Your task to perform on an android device: Empty the shopping cart on newegg.com. Image 0: 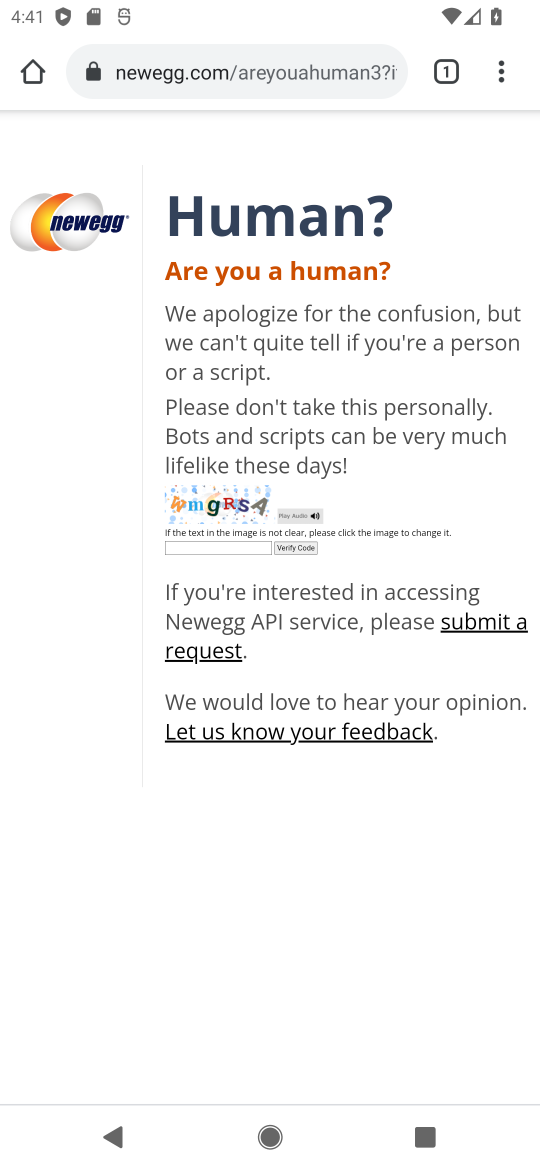
Step 0: press home button
Your task to perform on an android device: Empty the shopping cart on newegg.com. Image 1: 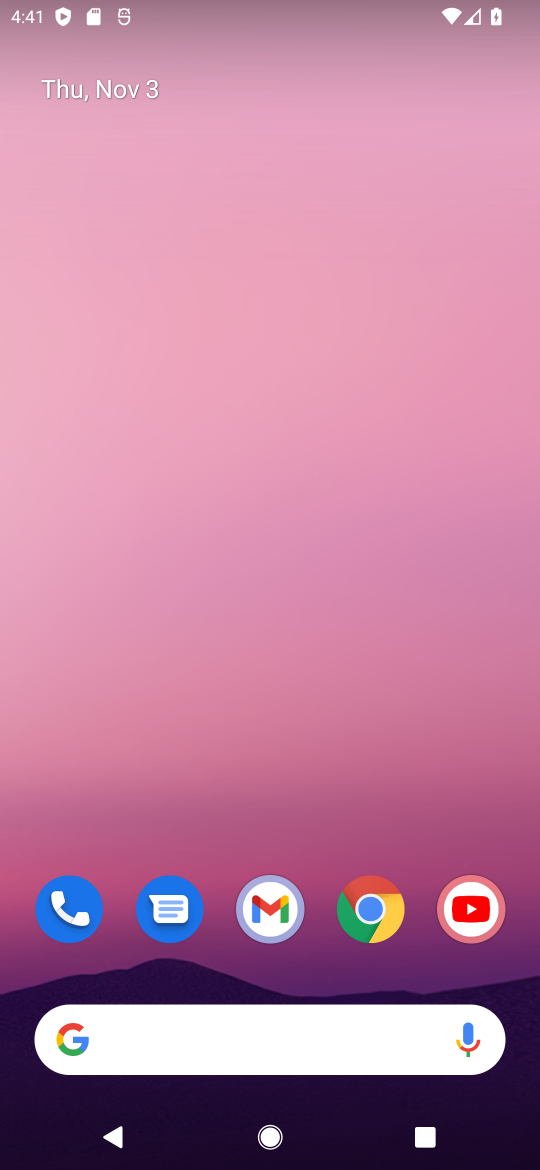
Step 1: click (373, 913)
Your task to perform on an android device: Empty the shopping cart on newegg.com. Image 2: 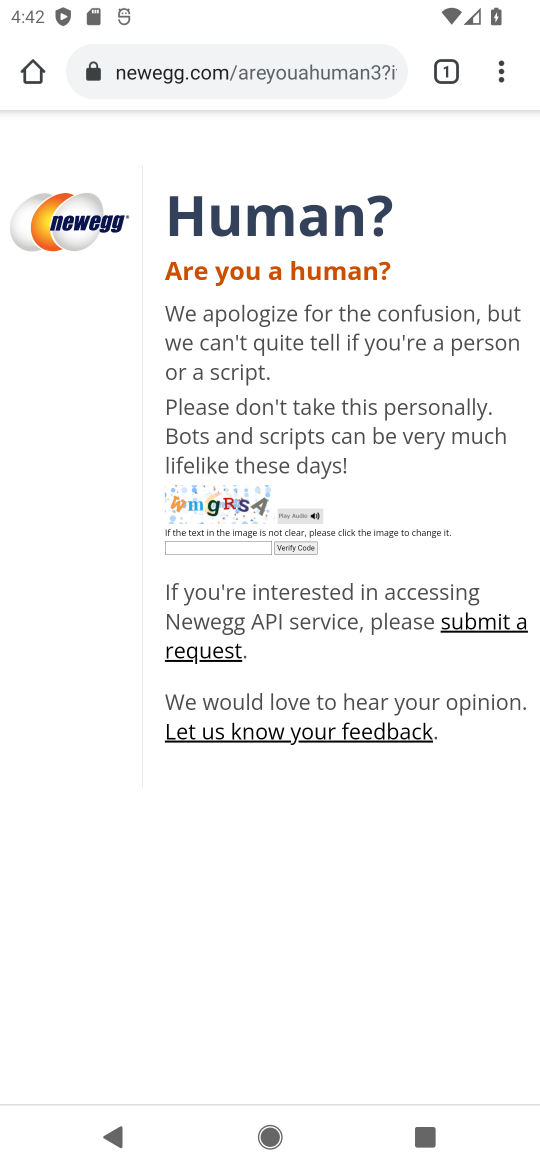
Step 2: click (267, 77)
Your task to perform on an android device: Empty the shopping cart on newegg.com. Image 3: 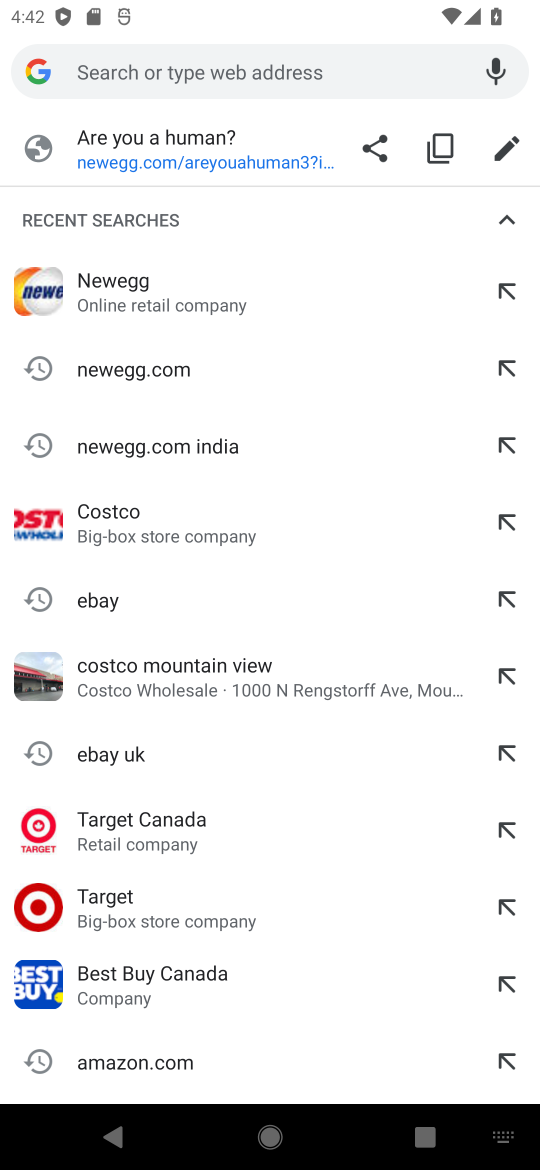
Step 3: click (178, 59)
Your task to perform on an android device: Empty the shopping cart on newegg.com. Image 4: 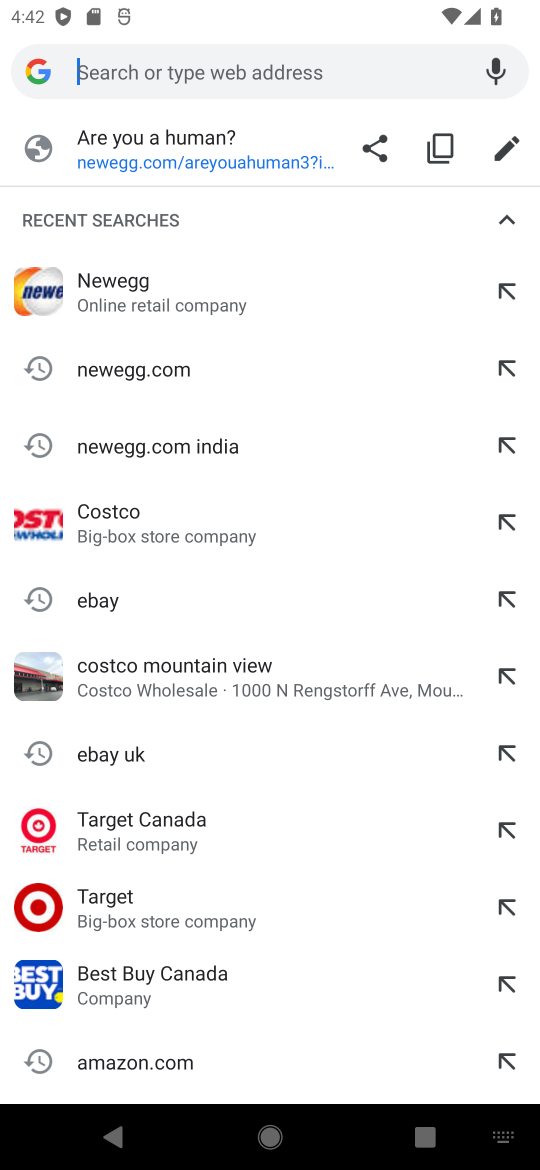
Step 4: type "newegg.com"
Your task to perform on an android device: Empty the shopping cart on newegg.com. Image 5: 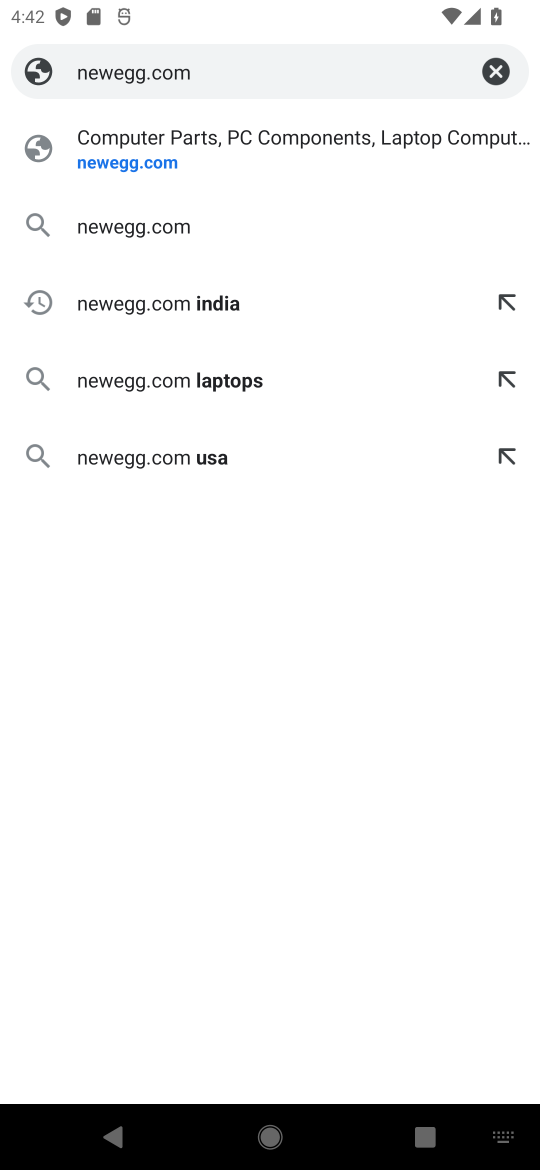
Step 5: click (127, 230)
Your task to perform on an android device: Empty the shopping cart on newegg.com. Image 6: 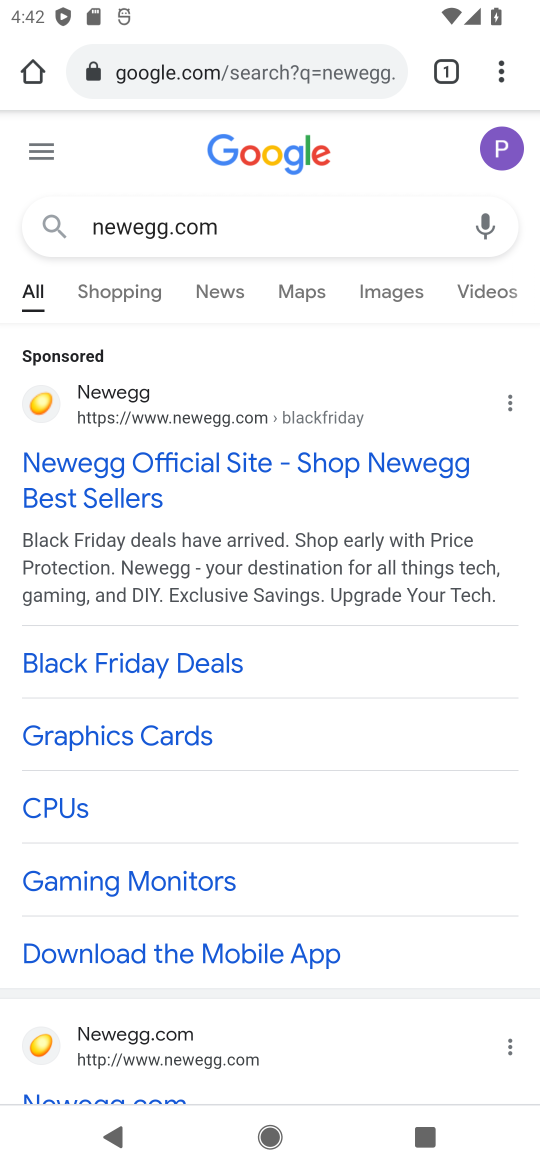
Step 6: drag from (317, 1027) to (354, 609)
Your task to perform on an android device: Empty the shopping cart on newegg.com. Image 7: 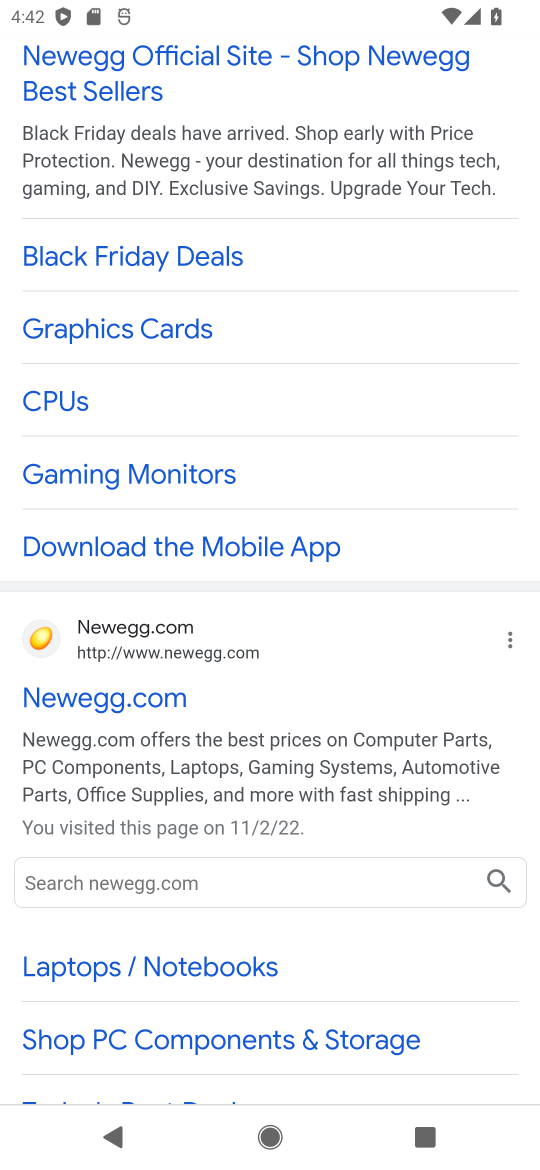
Step 7: click (227, 699)
Your task to perform on an android device: Empty the shopping cart on newegg.com. Image 8: 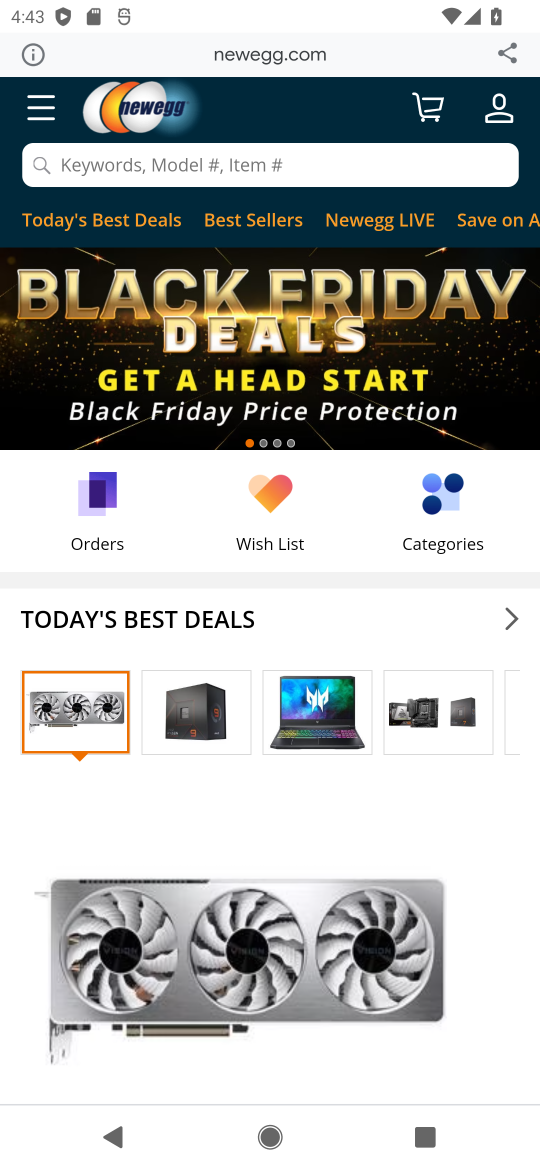
Step 8: click (425, 115)
Your task to perform on an android device: Empty the shopping cart on newegg.com. Image 9: 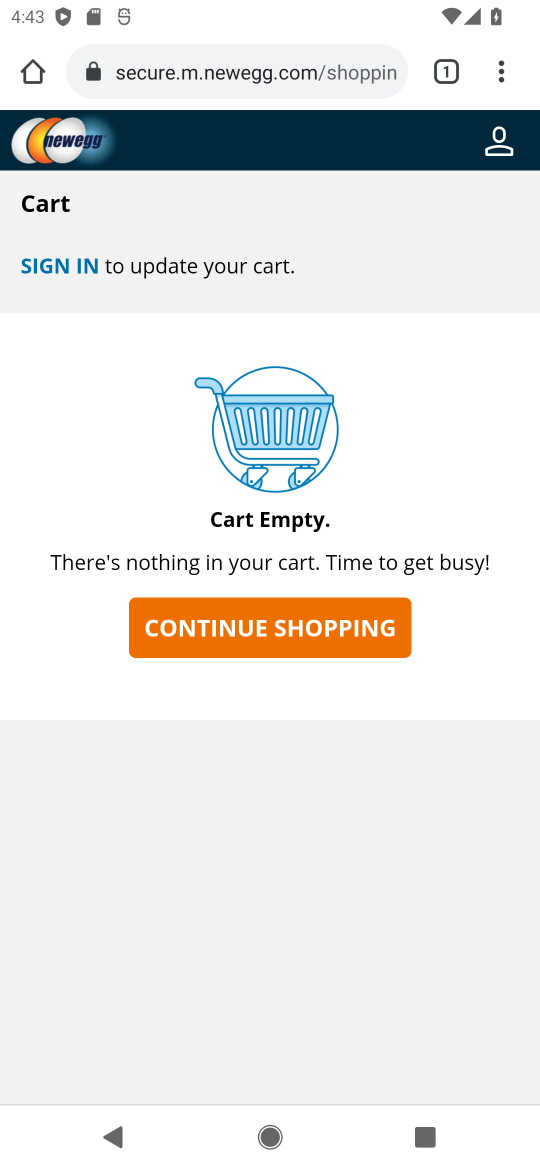
Step 9: task complete